Your task to perform on an android device: move an email to a new category in the gmail app Image 0: 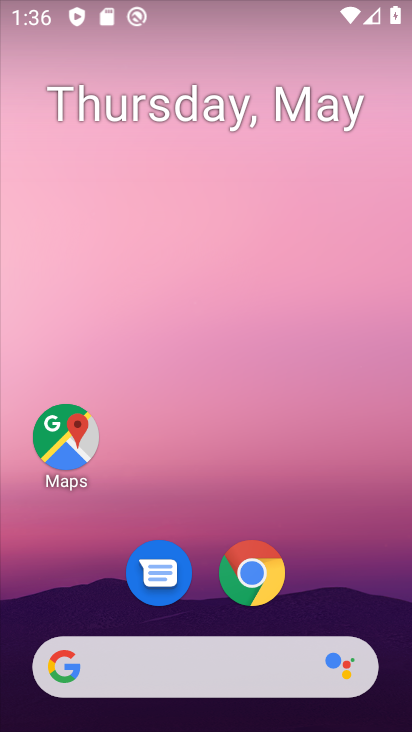
Step 0: drag from (321, 574) to (255, 175)
Your task to perform on an android device: move an email to a new category in the gmail app Image 1: 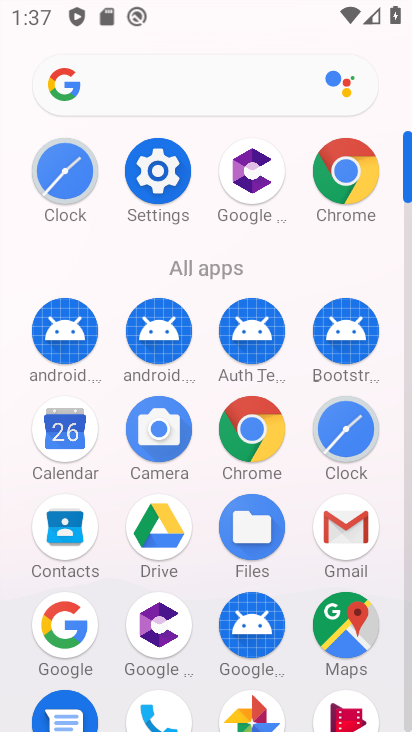
Step 1: click (357, 549)
Your task to perform on an android device: move an email to a new category in the gmail app Image 2: 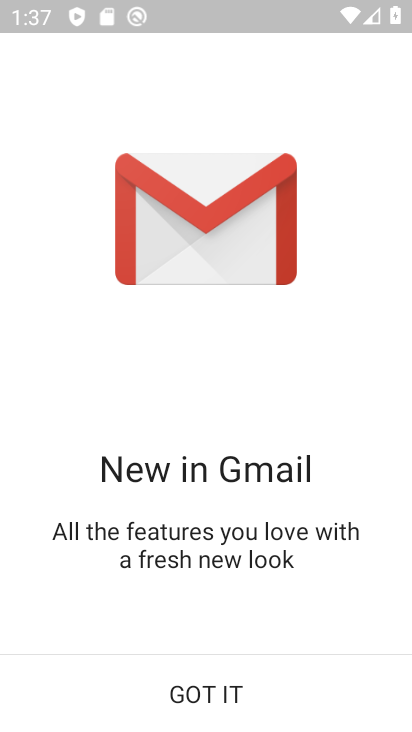
Step 2: click (239, 689)
Your task to perform on an android device: move an email to a new category in the gmail app Image 3: 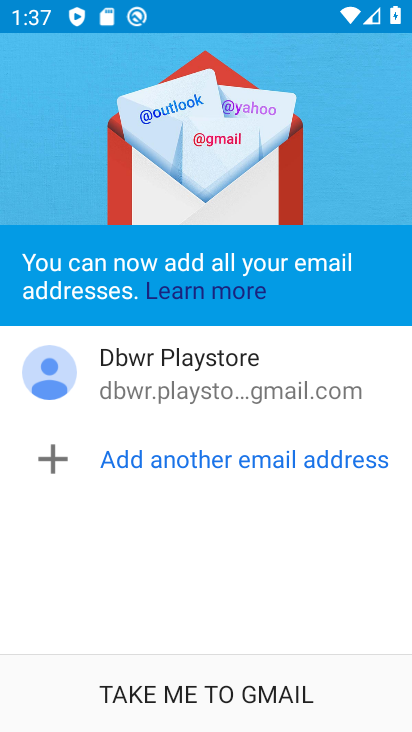
Step 3: click (271, 691)
Your task to perform on an android device: move an email to a new category in the gmail app Image 4: 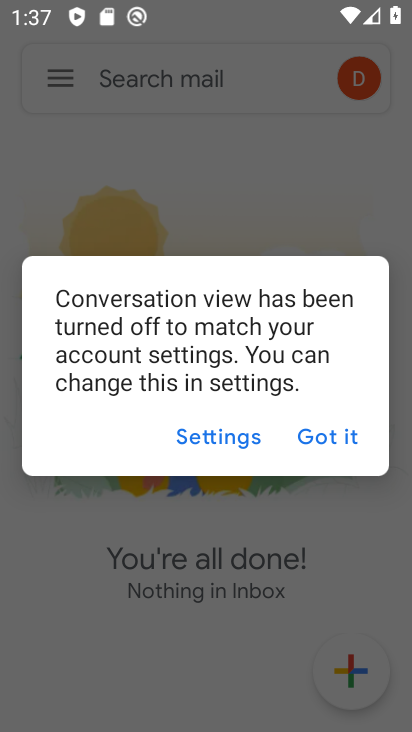
Step 4: click (333, 440)
Your task to perform on an android device: move an email to a new category in the gmail app Image 5: 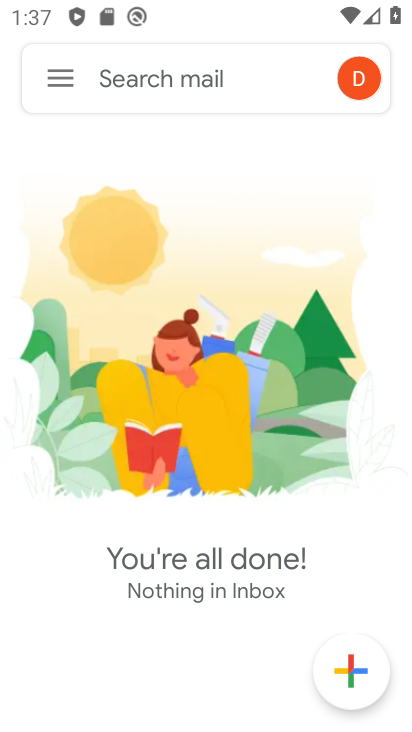
Step 5: task complete